Your task to perform on an android device: find photos in the google photos app Image 0: 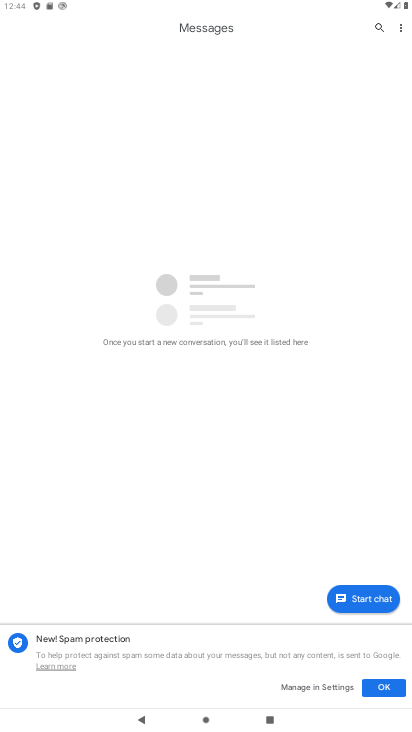
Step 0: press home button
Your task to perform on an android device: find photos in the google photos app Image 1: 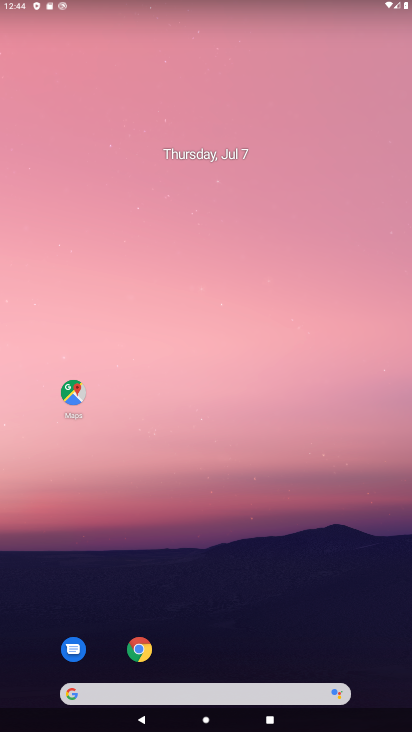
Step 1: drag from (207, 645) to (109, 279)
Your task to perform on an android device: find photos in the google photos app Image 2: 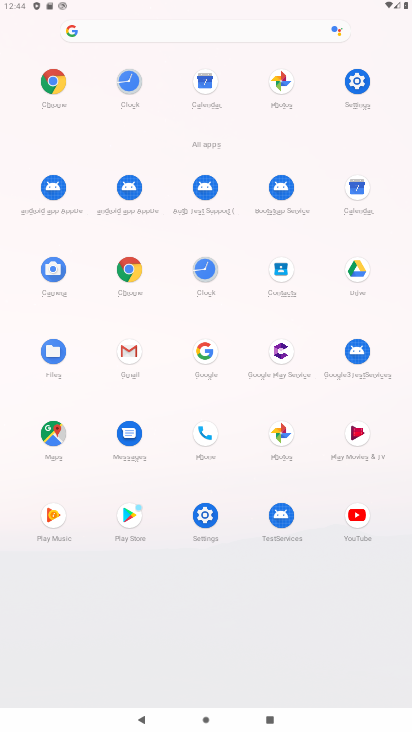
Step 2: click (286, 436)
Your task to perform on an android device: find photos in the google photos app Image 3: 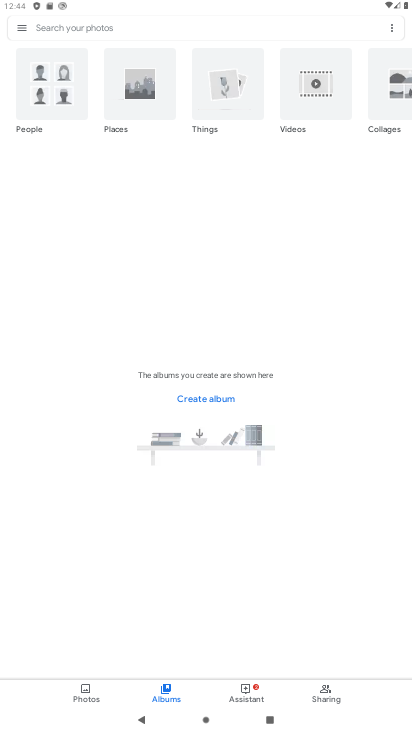
Step 3: click (78, 693)
Your task to perform on an android device: find photos in the google photos app Image 4: 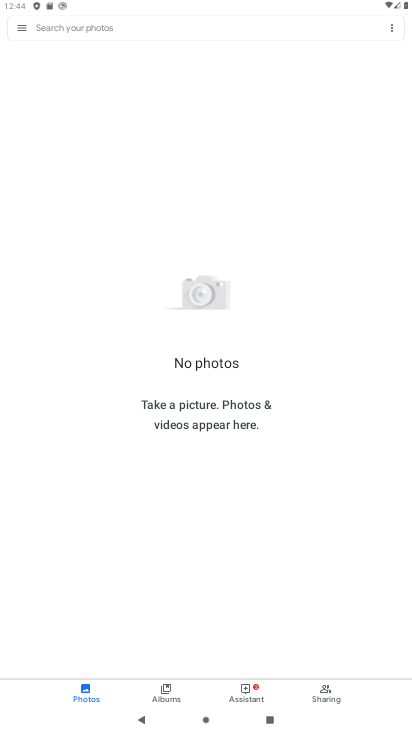
Step 4: task complete